Your task to perform on an android device: Open accessibility settings Image 0: 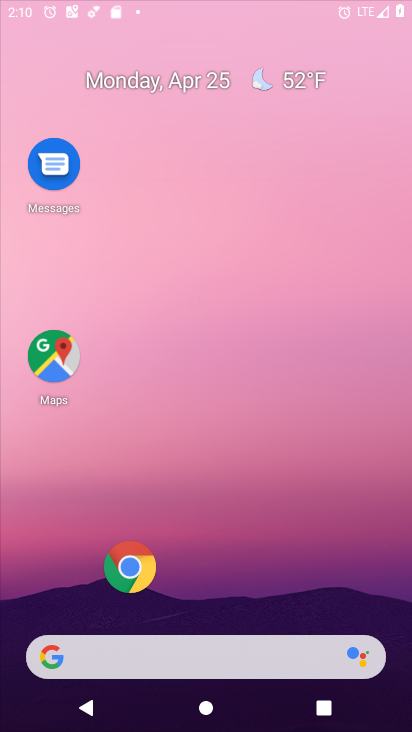
Step 0: drag from (188, 579) to (239, 225)
Your task to perform on an android device: Open accessibility settings Image 1: 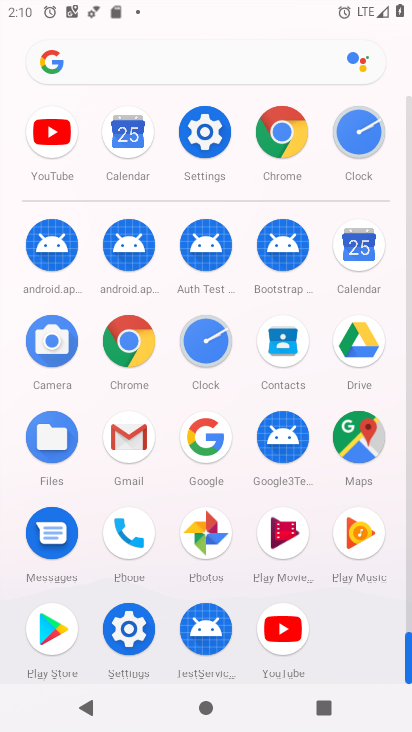
Step 1: click (214, 138)
Your task to perform on an android device: Open accessibility settings Image 2: 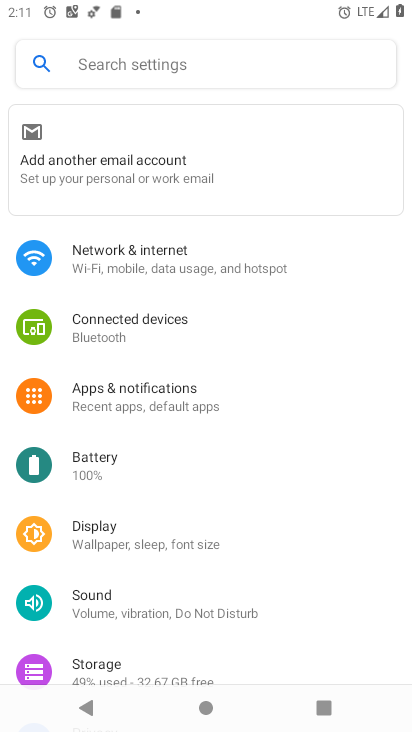
Step 2: drag from (185, 488) to (224, 242)
Your task to perform on an android device: Open accessibility settings Image 3: 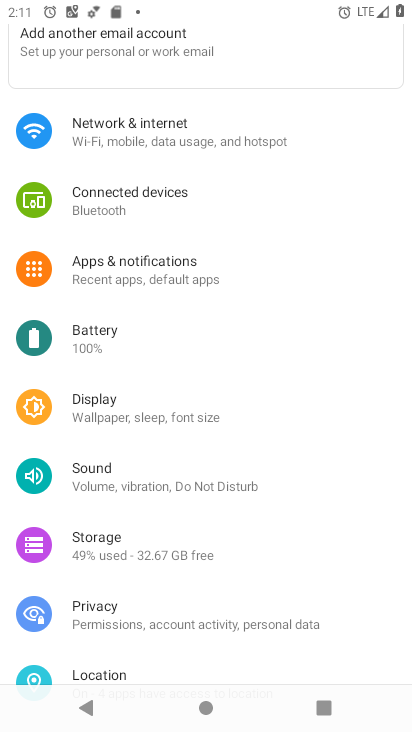
Step 3: drag from (176, 556) to (225, 240)
Your task to perform on an android device: Open accessibility settings Image 4: 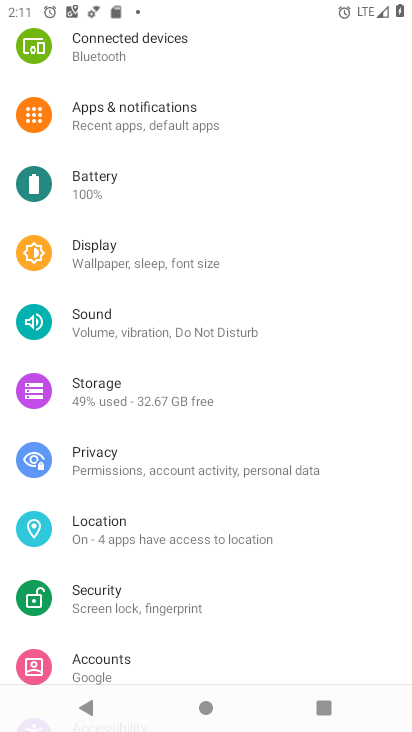
Step 4: drag from (198, 570) to (242, 238)
Your task to perform on an android device: Open accessibility settings Image 5: 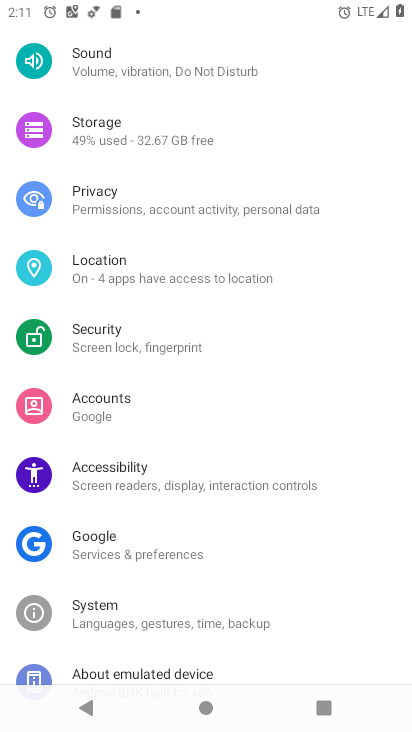
Step 5: click (179, 466)
Your task to perform on an android device: Open accessibility settings Image 6: 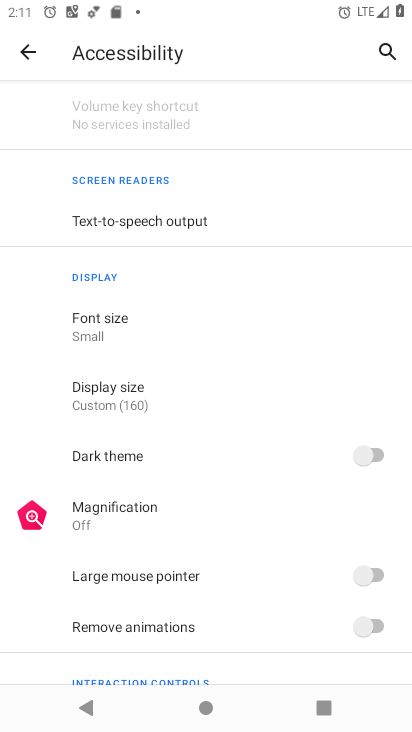
Step 6: task complete